Your task to perform on an android device: Go to accessibility settings Image 0: 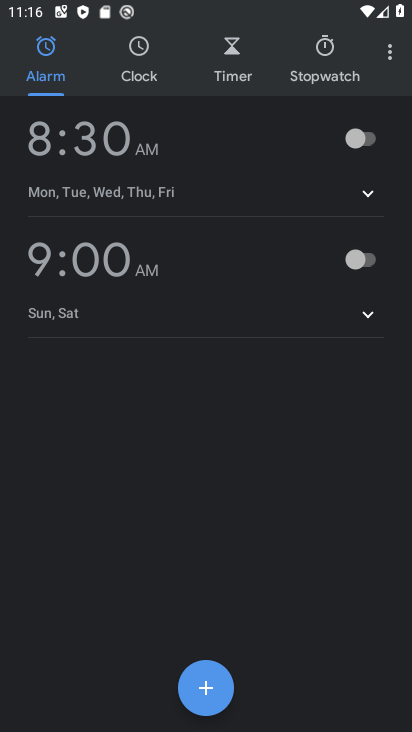
Step 0: press home button
Your task to perform on an android device: Go to accessibility settings Image 1: 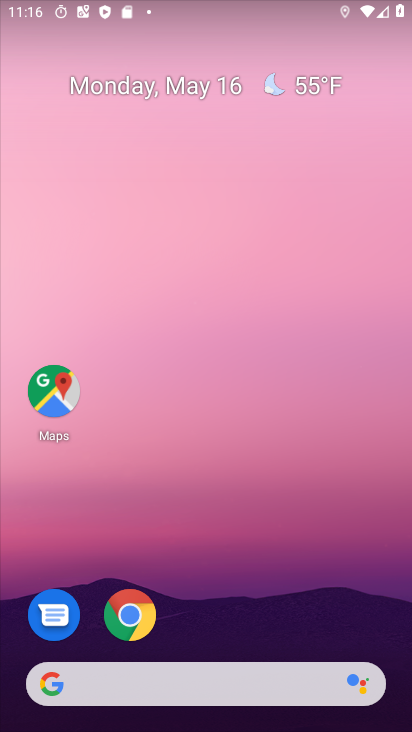
Step 1: drag from (198, 558) to (256, 79)
Your task to perform on an android device: Go to accessibility settings Image 2: 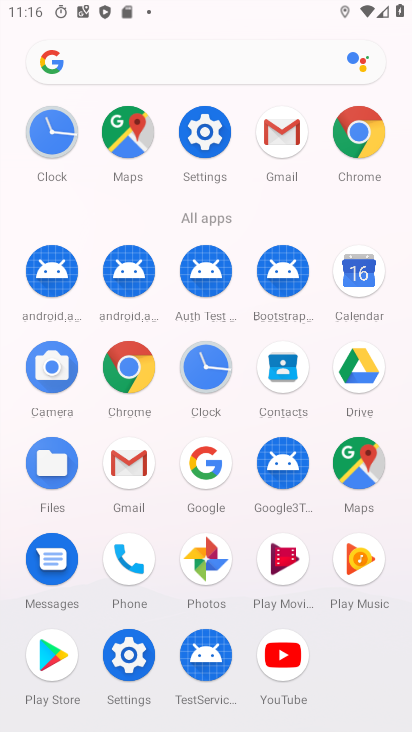
Step 2: click (210, 126)
Your task to perform on an android device: Go to accessibility settings Image 3: 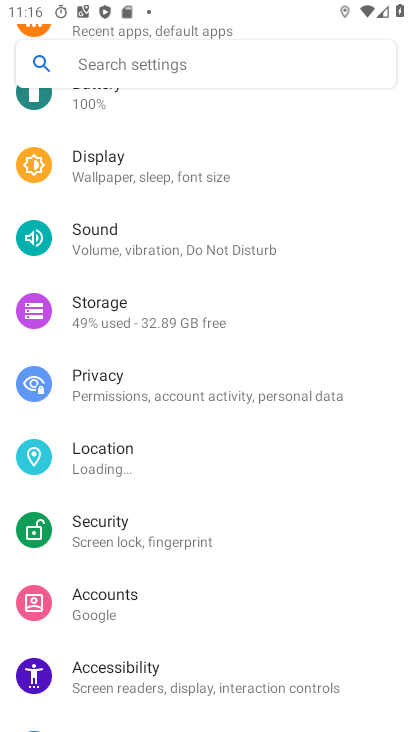
Step 3: click (124, 667)
Your task to perform on an android device: Go to accessibility settings Image 4: 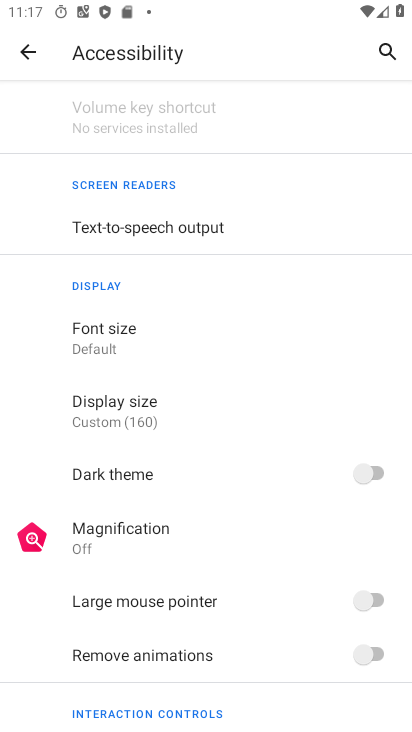
Step 4: task complete